Your task to perform on an android device: Open the web browser Image 0: 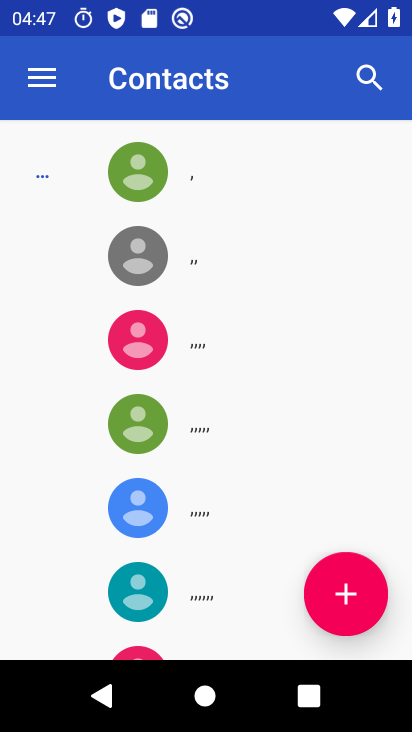
Step 0: press home button
Your task to perform on an android device: Open the web browser Image 1: 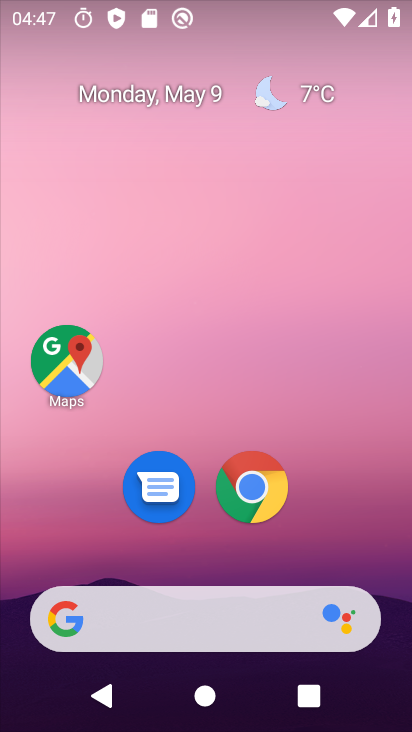
Step 1: click (257, 499)
Your task to perform on an android device: Open the web browser Image 2: 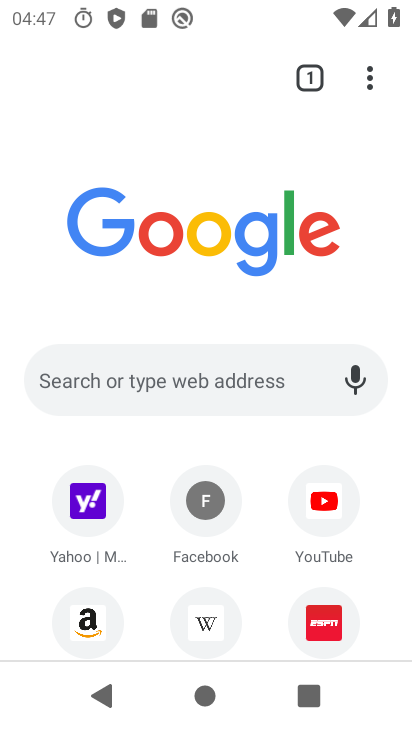
Step 2: task complete